Your task to perform on an android device: open a new tab in the chrome app Image 0: 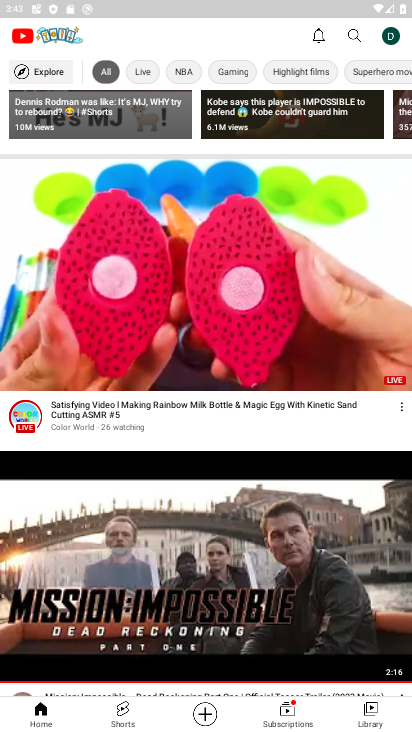
Step 0: press home button
Your task to perform on an android device: open a new tab in the chrome app Image 1: 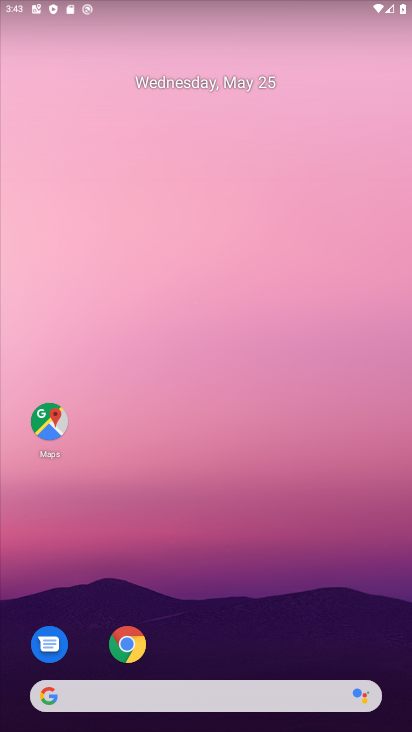
Step 1: click (122, 654)
Your task to perform on an android device: open a new tab in the chrome app Image 2: 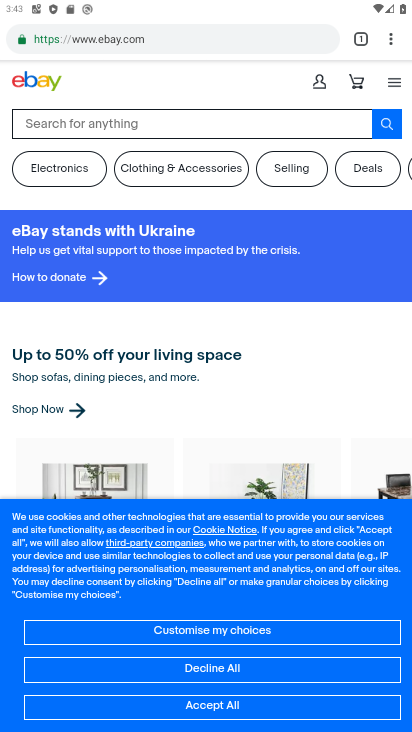
Step 2: click (392, 38)
Your task to perform on an android device: open a new tab in the chrome app Image 3: 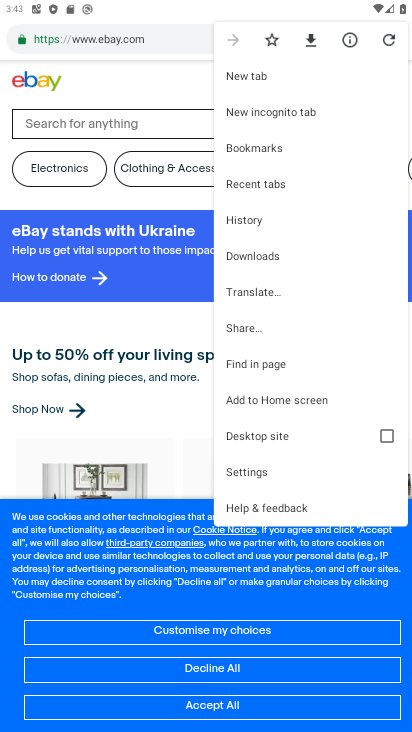
Step 3: click (253, 76)
Your task to perform on an android device: open a new tab in the chrome app Image 4: 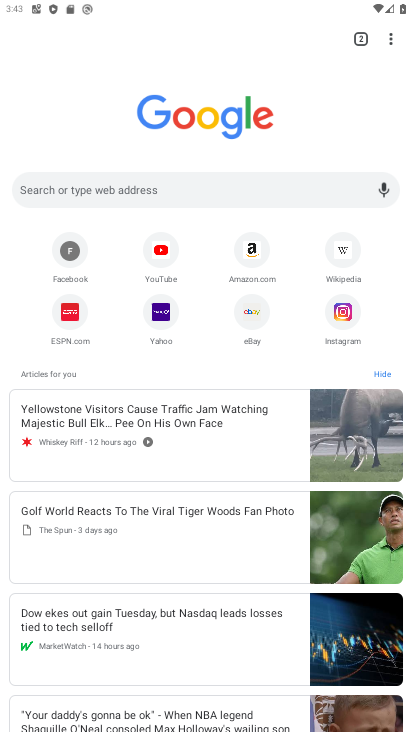
Step 4: task complete